Your task to perform on an android device: open app "Pinterest" Image 0: 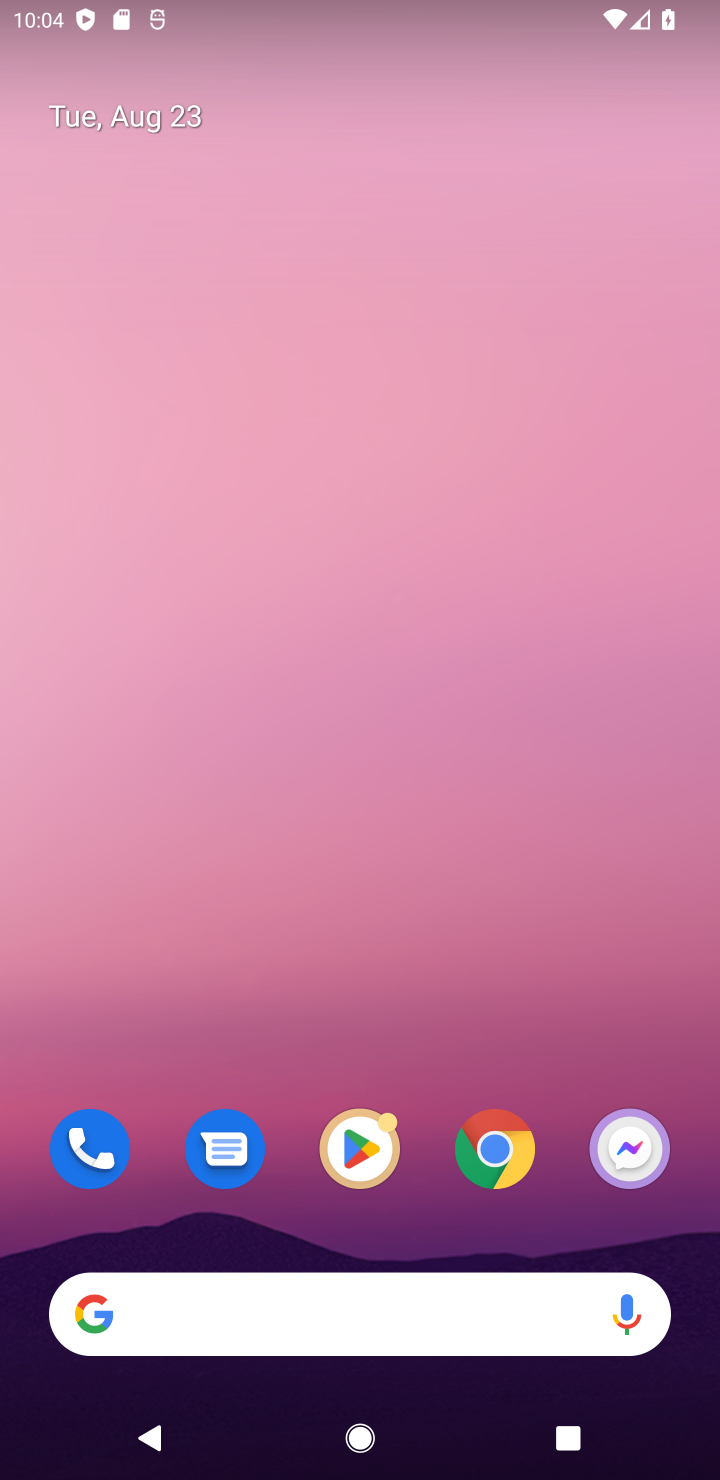
Step 0: click (375, 1141)
Your task to perform on an android device: open app "Pinterest" Image 1: 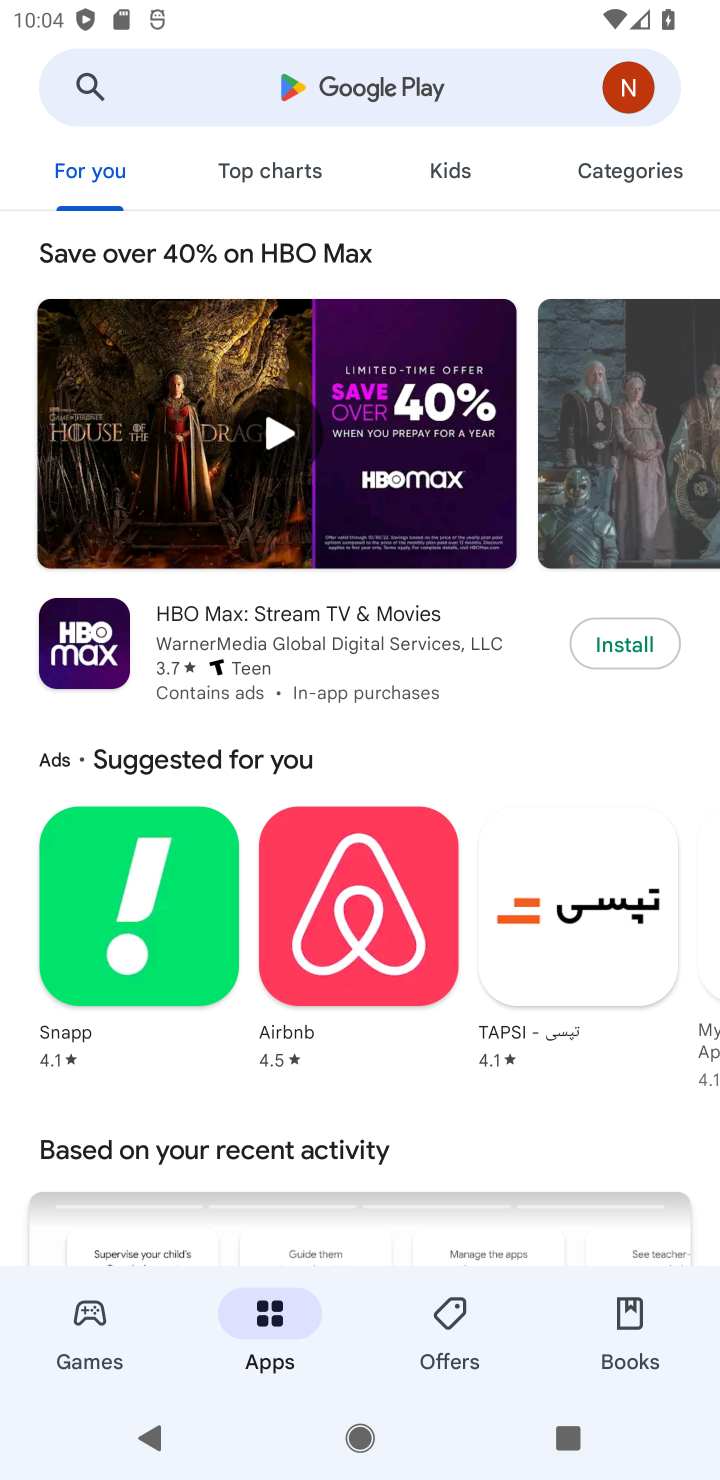
Step 1: click (474, 101)
Your task to perform on an android device: open app "Pinterest" Image 2: 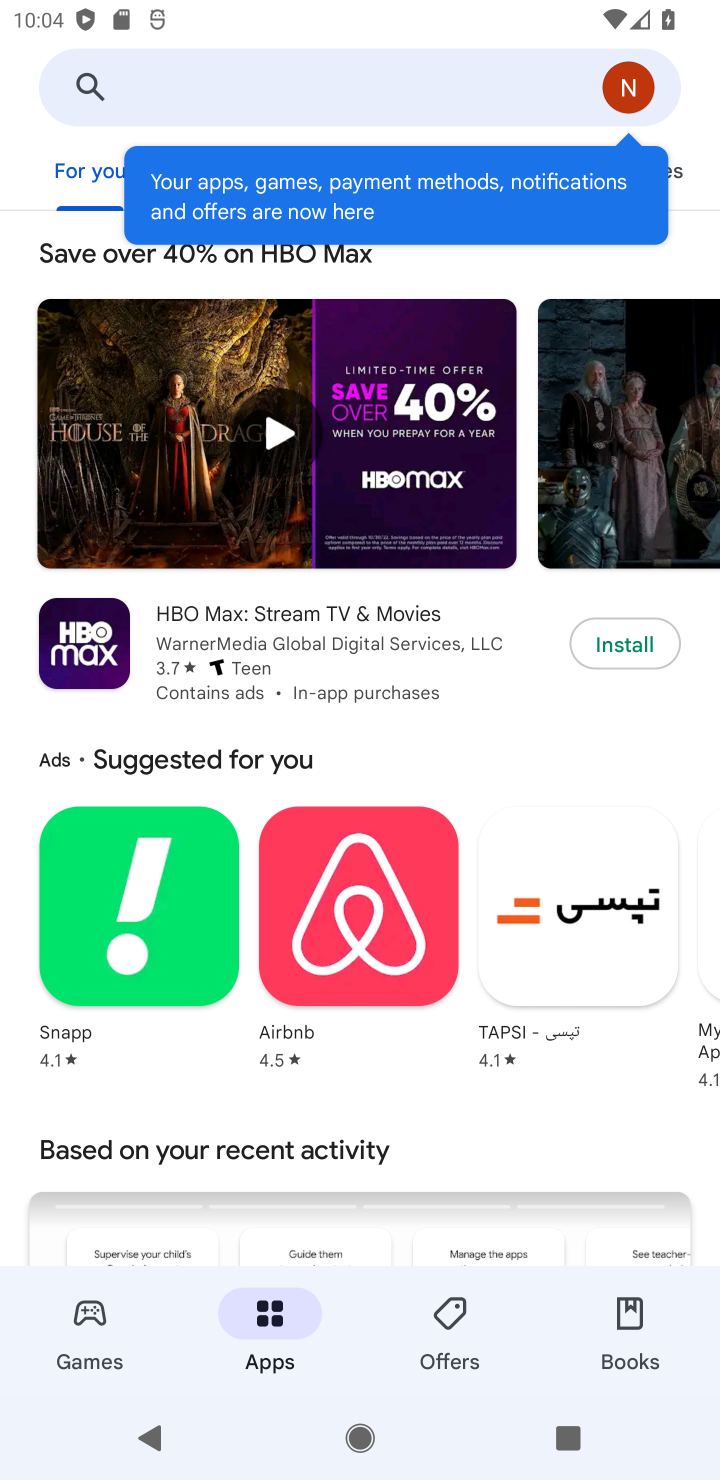
Step 2: click (474, 101)
Your task to perform on an android device: open app "Pinterest" Image 3: 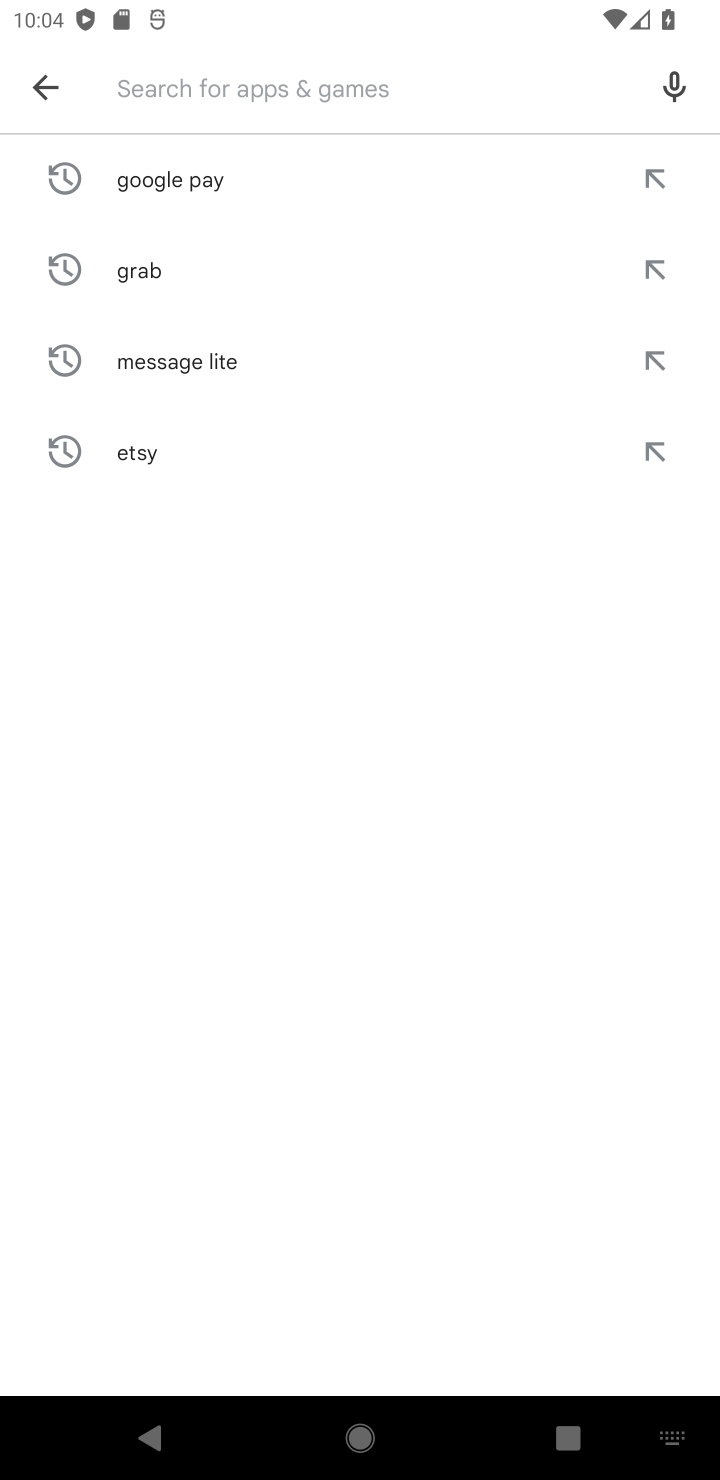
Step 3: type "pinterrest"
Your task to perform on an android device: open app "Pinterest" Image 4: 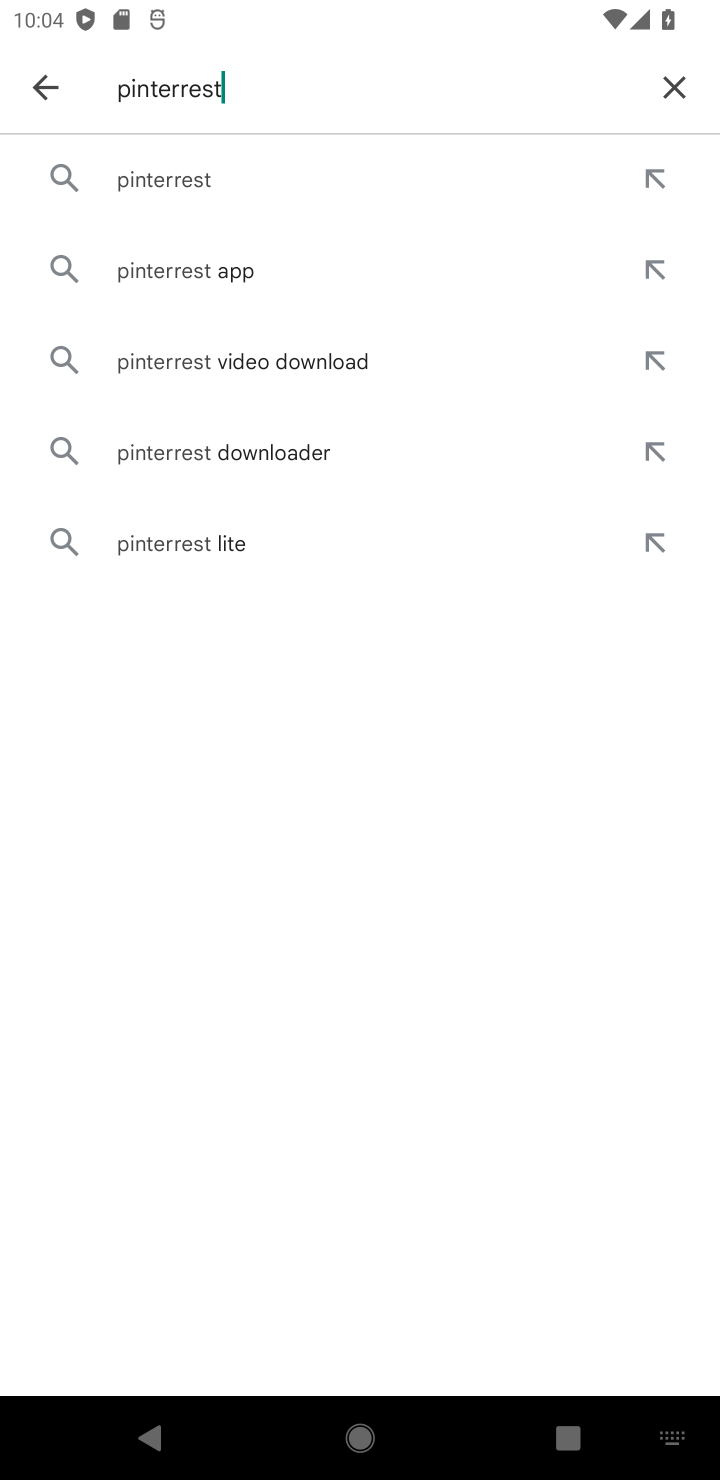
Step 4: click (296, 211)
Your task to perform on an android device: open app "Pinterest" Image 5: 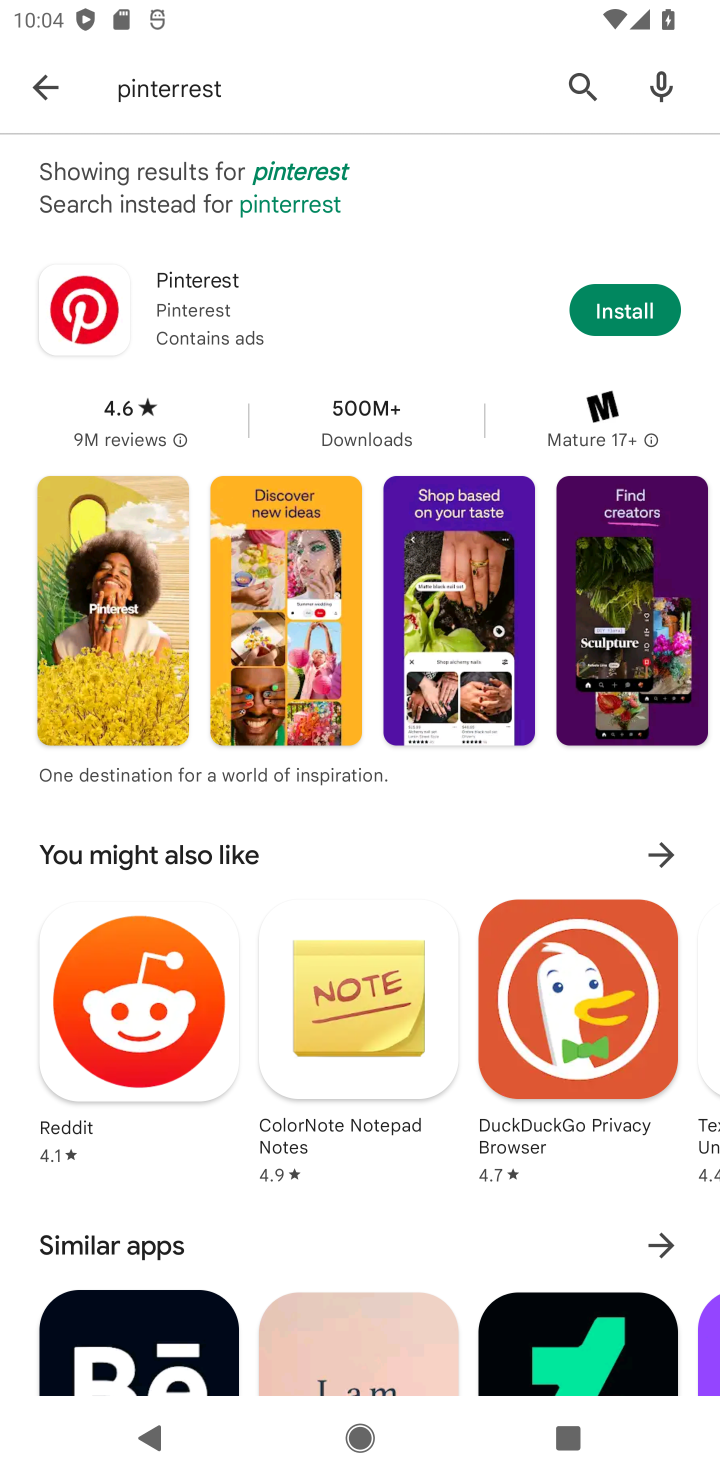
Step 5: click (645, 309)
Your task to perform on an android device: open app "Pinterest" Image 6: 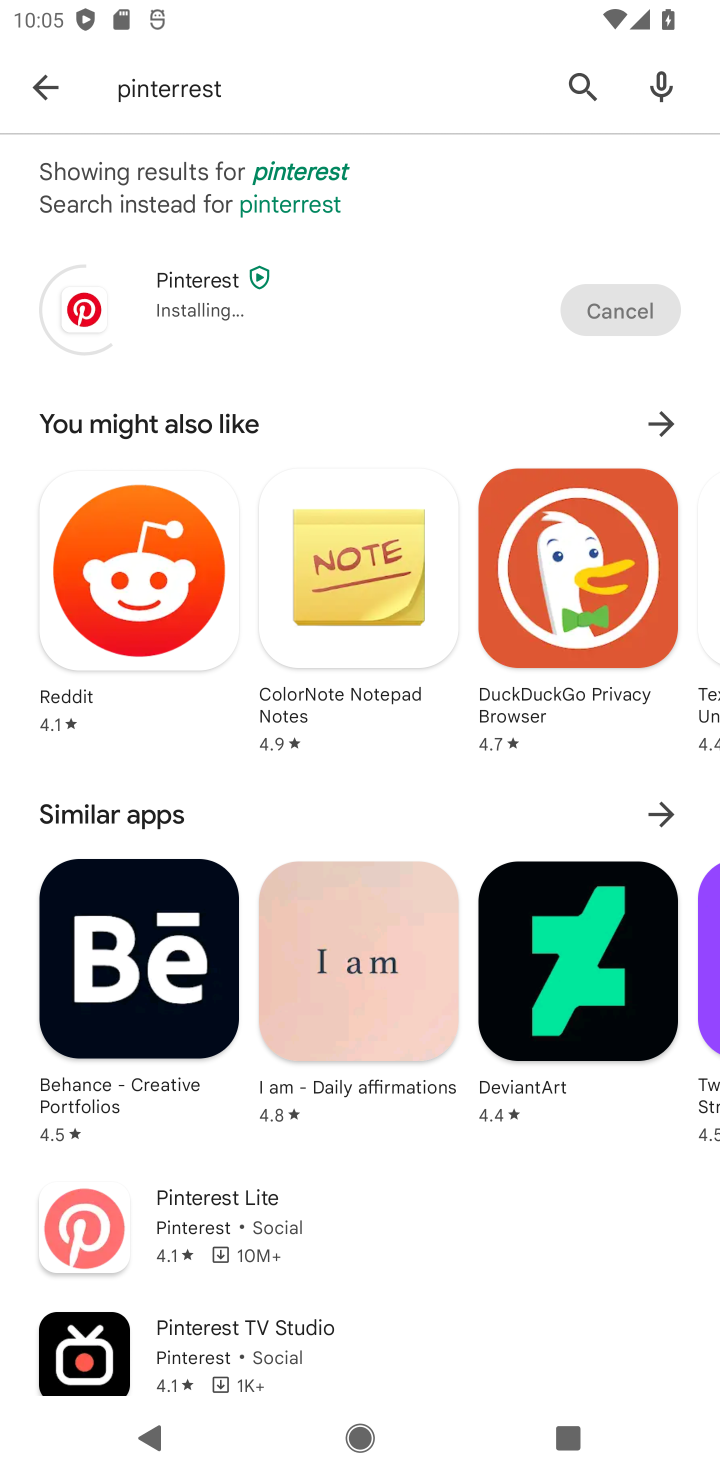
Step 6: task complete